Your task to perform on an android device: Open Chrome and go to the settings page Image 0: 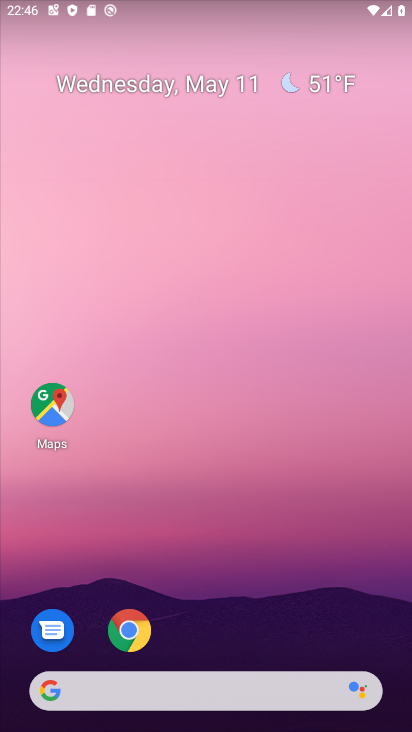
Step 0: drag from (215, 726) to (209, 228)
Your task to perform on an android device: Open Chrome and go to the settings page Image 1: 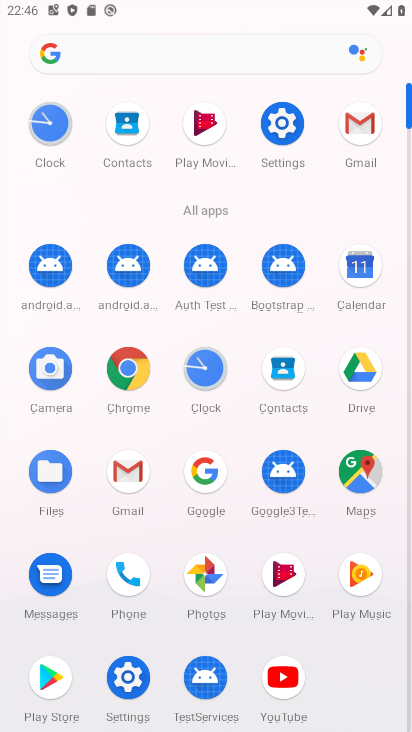
Step 1: click (131, 372)
Your task to perform on an android device: Open Chrome and go to the settings page Image 2: 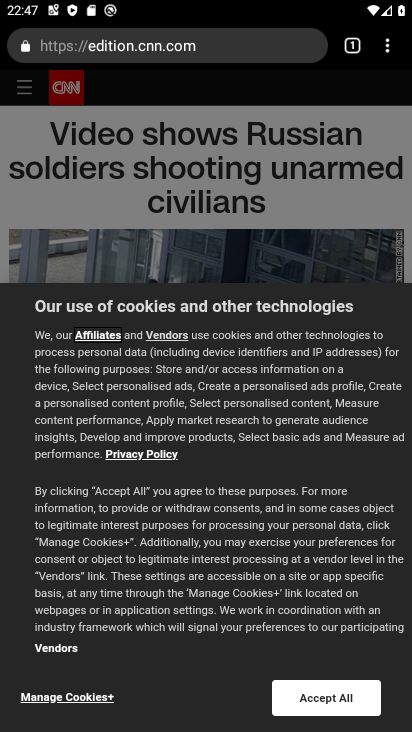
Step 2: click (390, 49)
Your task to perform on an android device: Open Chrome and go to the settings page Image 3: 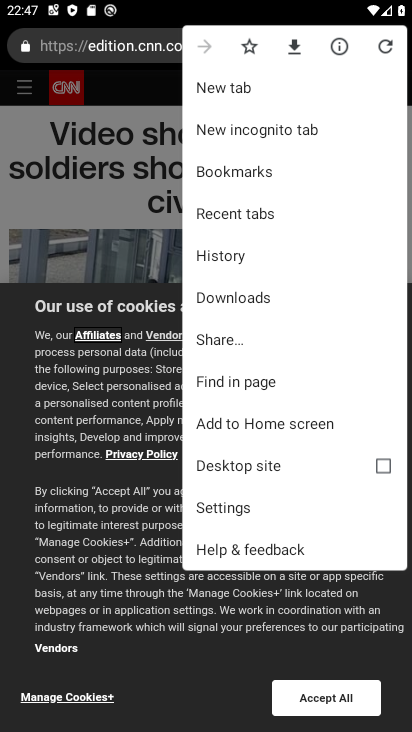
Step 3: click (225, 509)
Your task to perform on an android device: Open Chrome and go to the settings page Image 4: 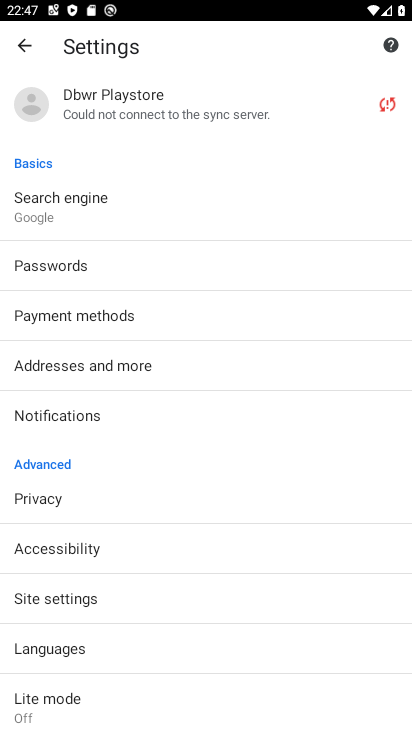
Step 4: task complete